Your task to perform on an android device: Check the news Image 0: 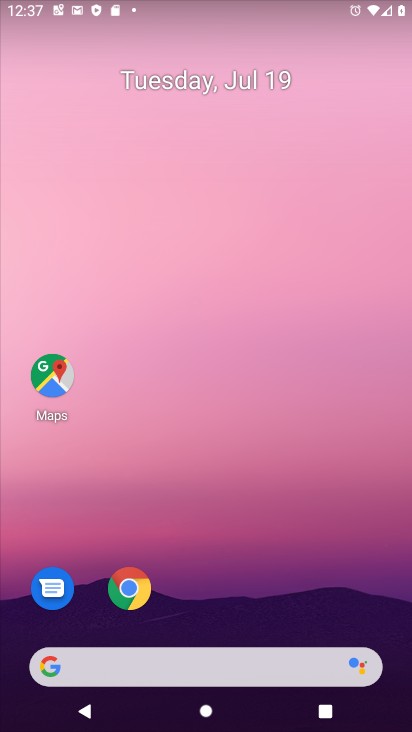
Step 0: drag from (348, 614) to (134, 68)
Your task to perform on an android device: Check the news Image 1: 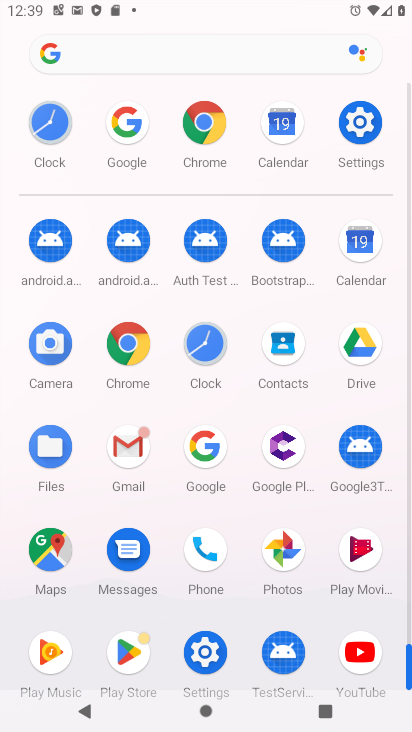
Step 1: click (199, 447)
Your task to perform on an android device: Check the news Image 2: 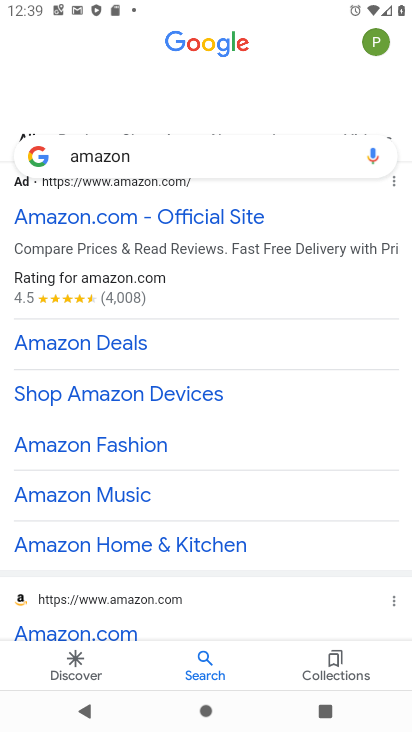
Step 2: press back button
Your task to perform on an android device: Check the news Image 3: 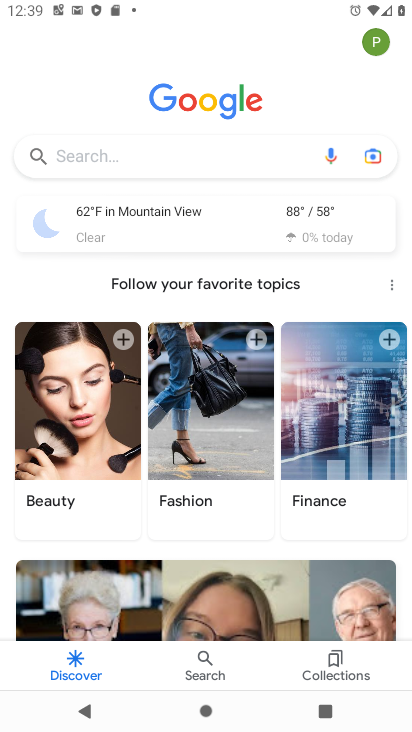
Step 3: click (169, 141)
Your task to perform on an android device: Check the news Image 4: 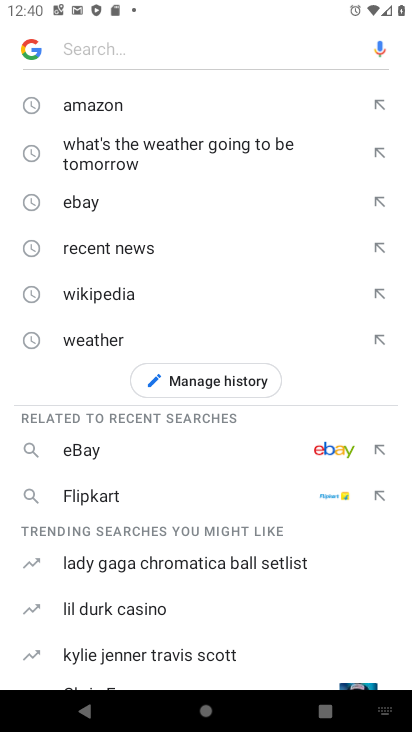
Step 4: type "news"
Your task to perform on an android device: Check the news Image 5: 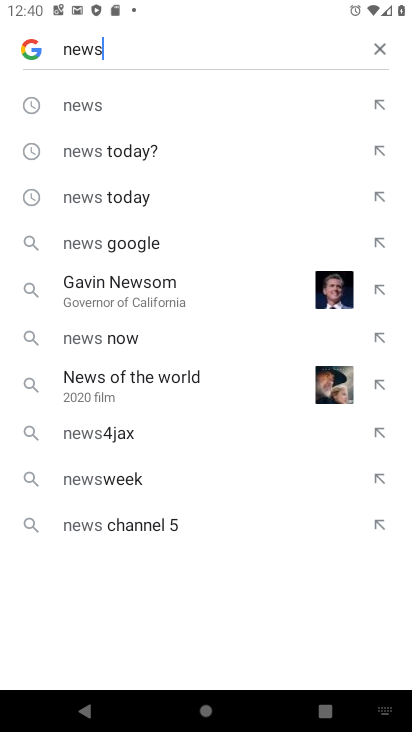
Step 5: click (81, 100)
Your task to perform on an android device: Check the news Image 6: 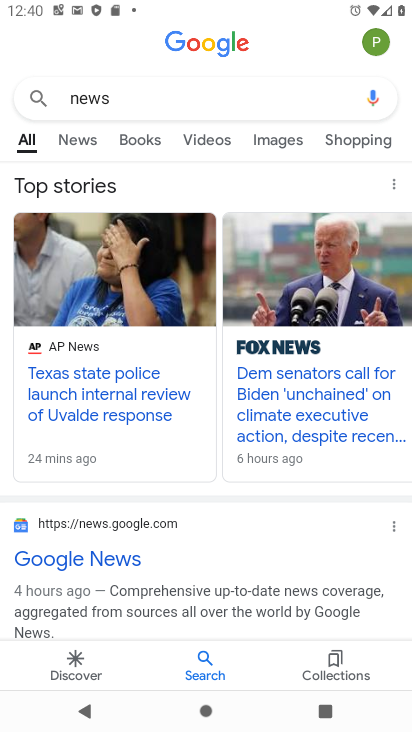
Step 6: task complete